Your task to perform on an android device: Add "jbl flip 4" to the cart on target Image 0: 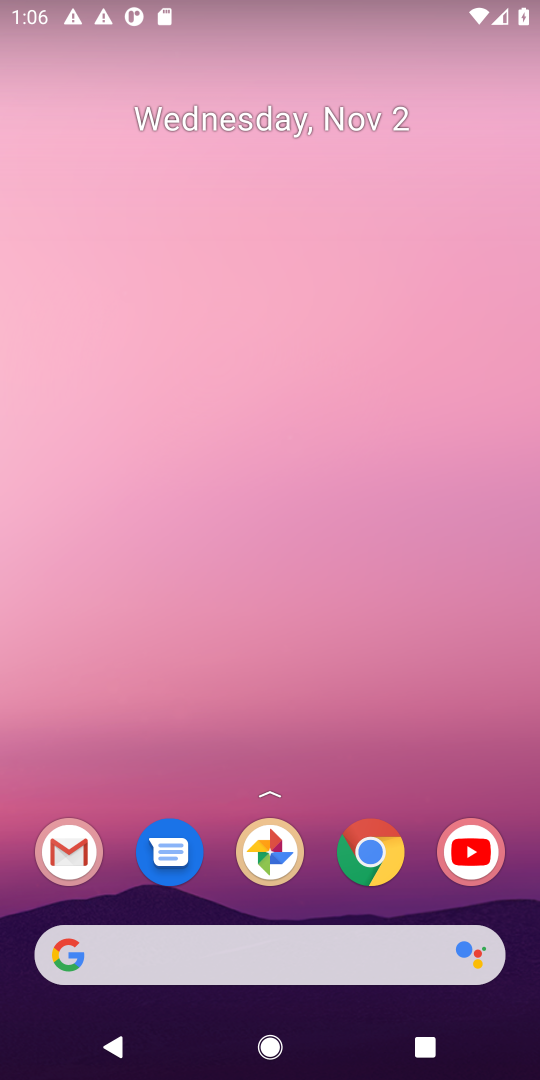
Step 0: press home button
Your task to perform on an android device: Add "jbl flip 4" to the cart on target Image 1: 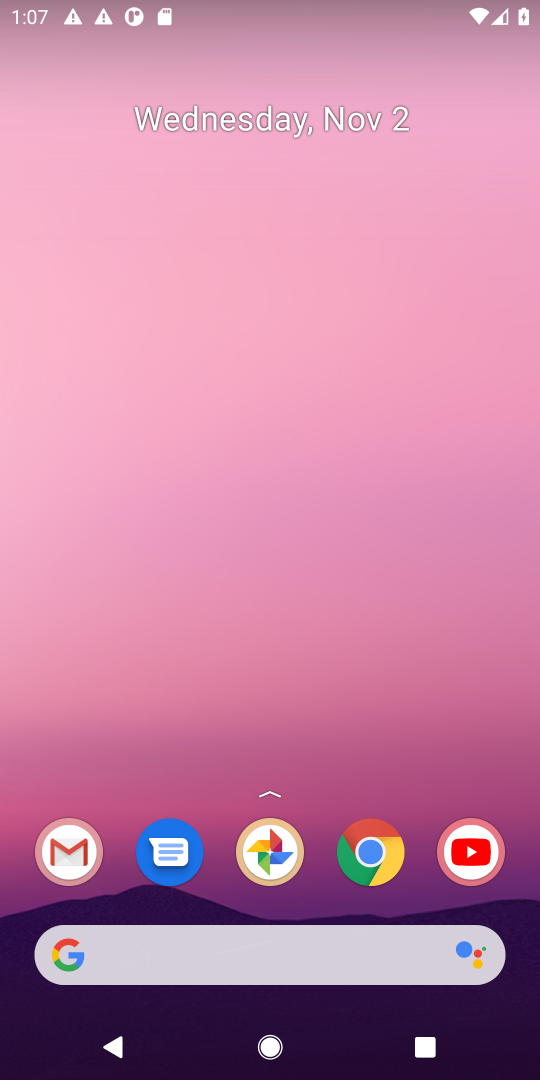
Step 1: click (67, 937)
Your task to perform on an android device: Add "jbl flip 4" to the cart on target Image 2: 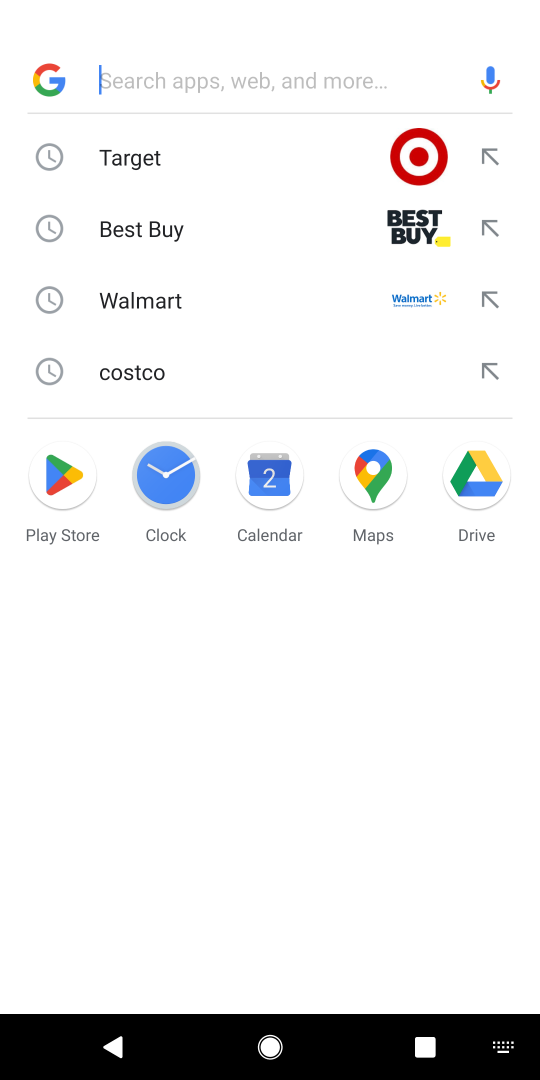
Step 2: click (149, 156)
Your task to perform on an android device: Add "jbl flip 4" to the cart on target Image 3: 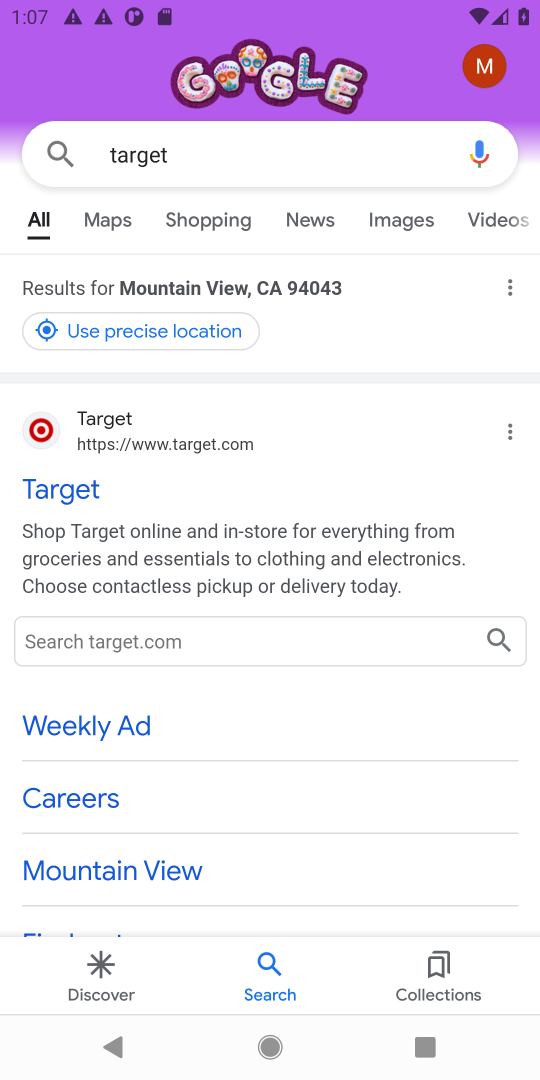
Step 3: click (67, 484)
Your task to perform on an android device: Add "jbl flip 4" to the cart on target Image 4: 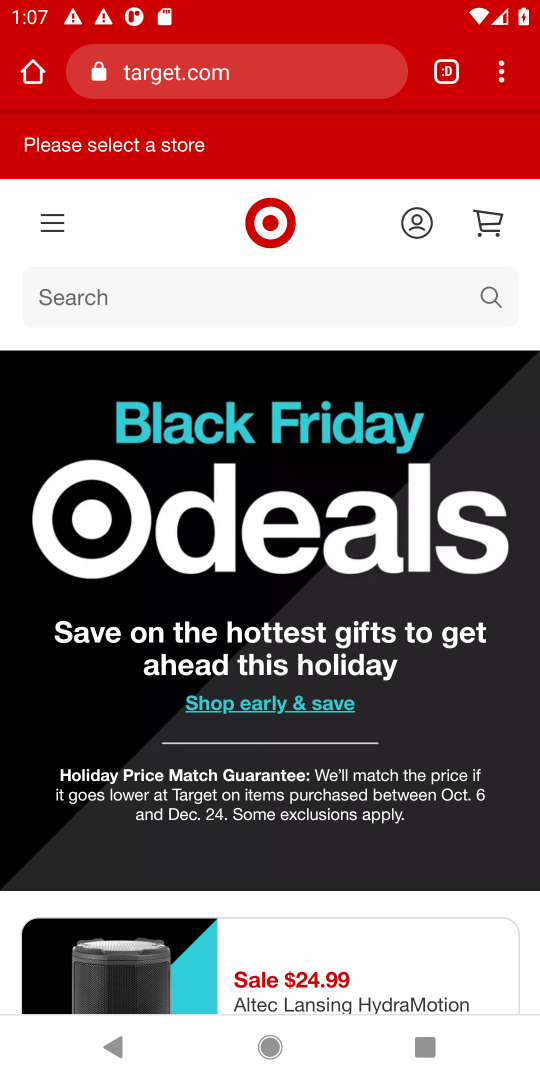
Step 4: click (152, 301)
Your task to perform on an android device: Add "jbl flip 4" to the cart on target Image 5: 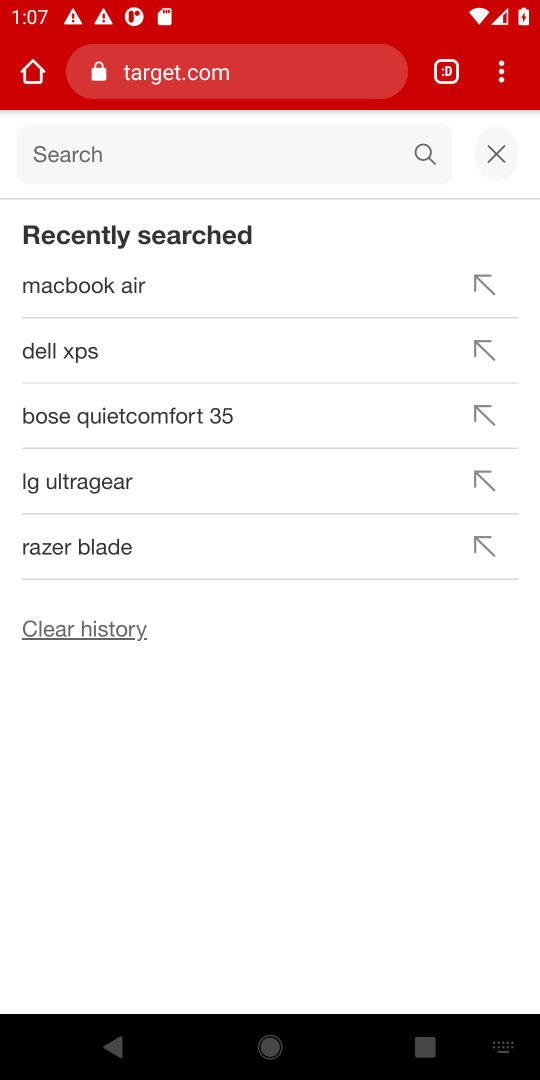
Step 5: type "jbl flip 4"
Your task to perform on an android device: Add "jbl flip 4" to the cart on target Image 6: 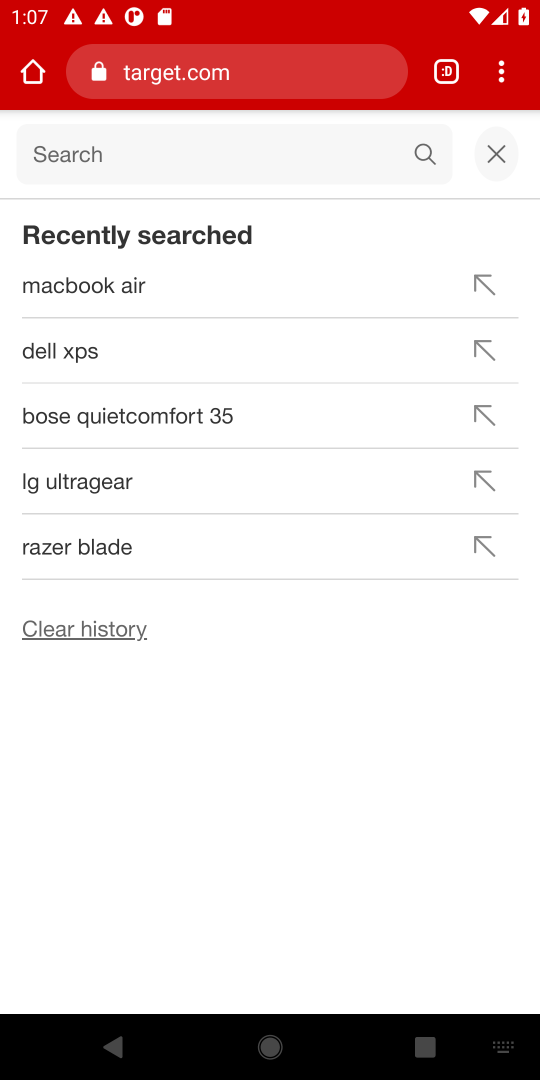
Step 6: click (75, 150)
Your task to perform on an android device: Add "jbl flip 4" to the cart on target Image 7: 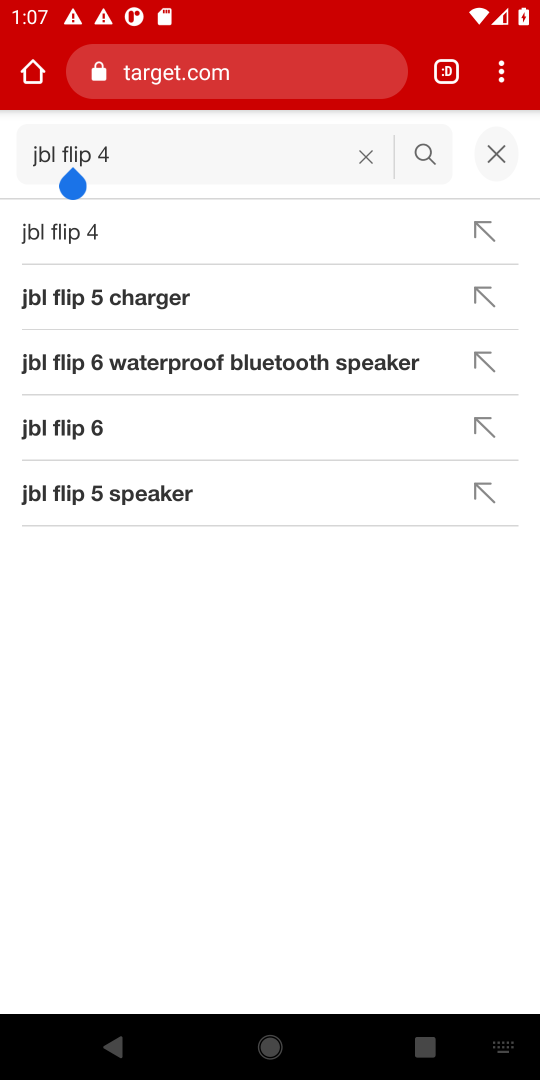
Step 7: press enter
Your task to perform on an android device: Add "jbl flip 4" to the cart on target Image 8: 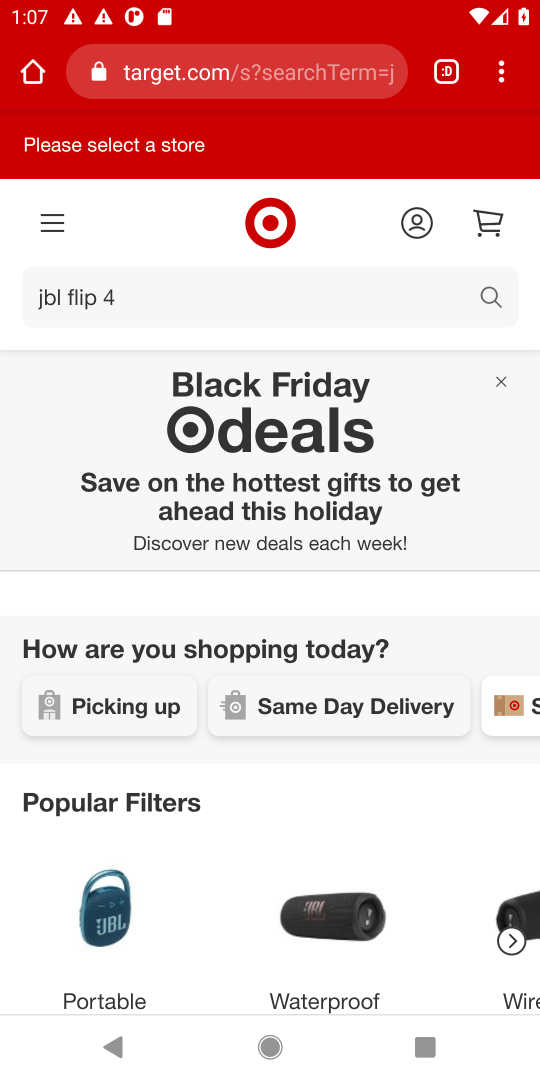
Step 8: drag from (371, 802) to (418, 266)
Your task to perform on an android device: Add "jbl flip 4" to the cart on target Image 9: 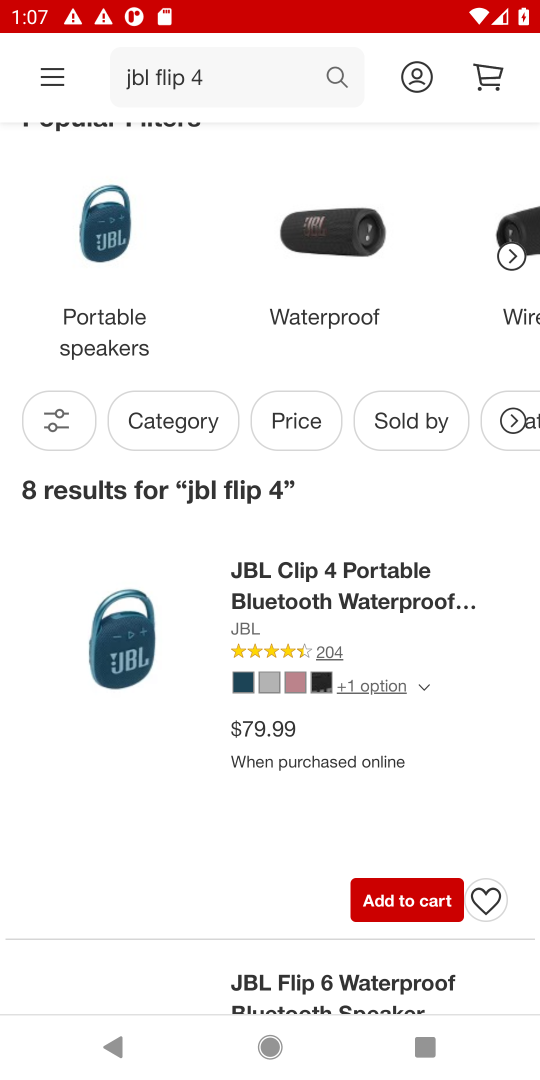
Step 9: click (322, 565)
Your task to perform on an android device: Add "jbl flip 4" to the cart on target Image 10: 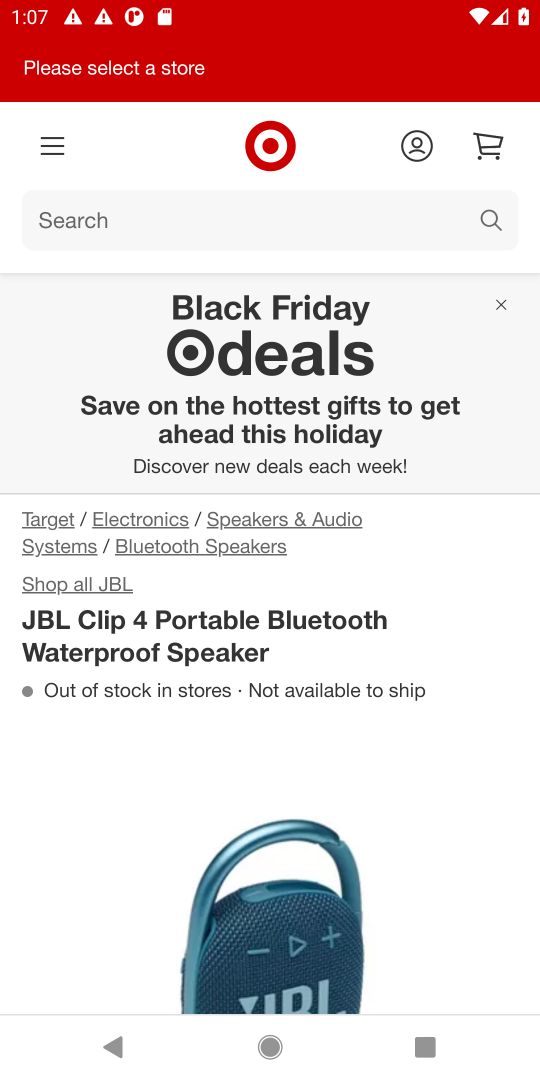
Step 10: drag from (402, 792) to (385, 311)
Your task to perform on an android device: Add "jbl flip 4" to the cart on target Image 11: 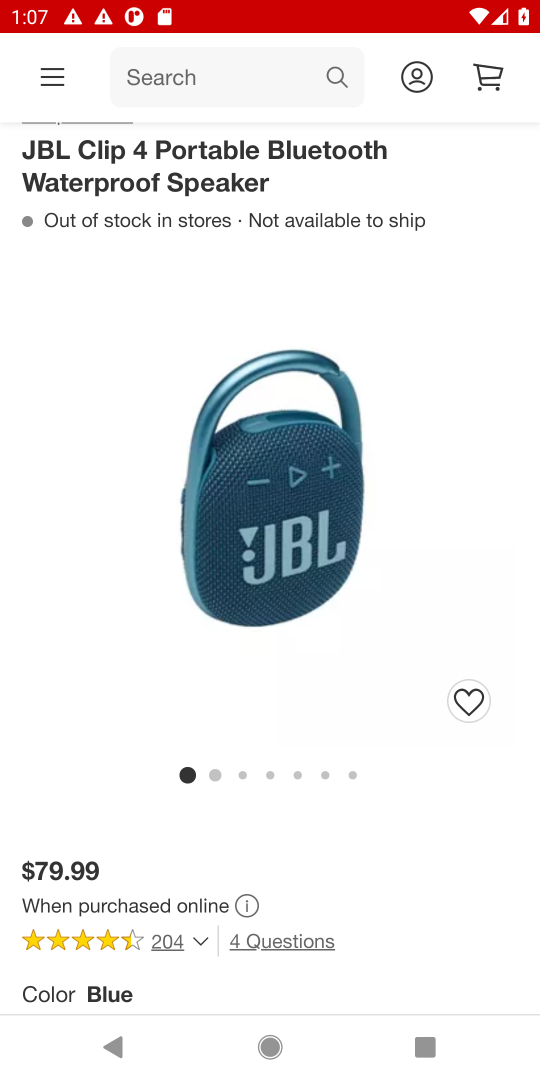
Step 11: drag from (398, 849) to (380, 302)
Your task to perform on an android device: Add "jbl flip 4" to the cart on target Image 12: 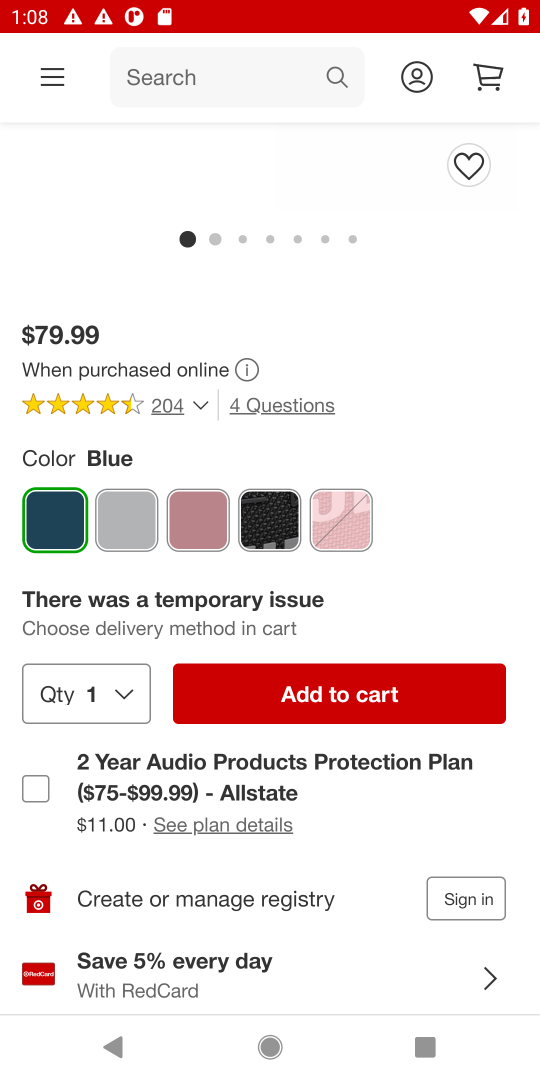
Step 12: click (341, 701)
Your task to perform on an android device: Add "jbl flip 4" to the cart on target Image 13: 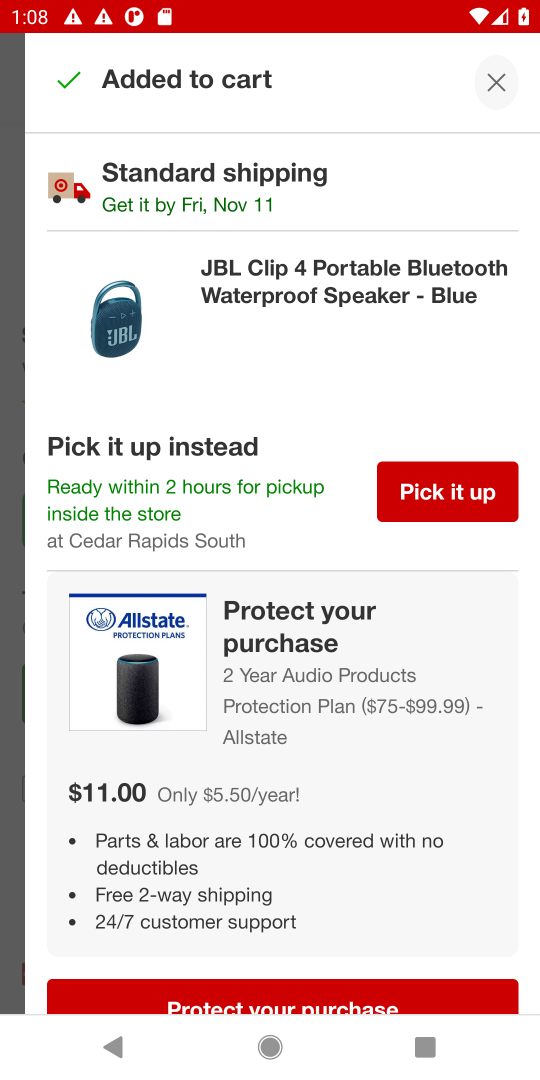
Step 13: click (495, 85)
Your task to perform on an android device: Add "jbl flip 4" to the cart on target Image 14: 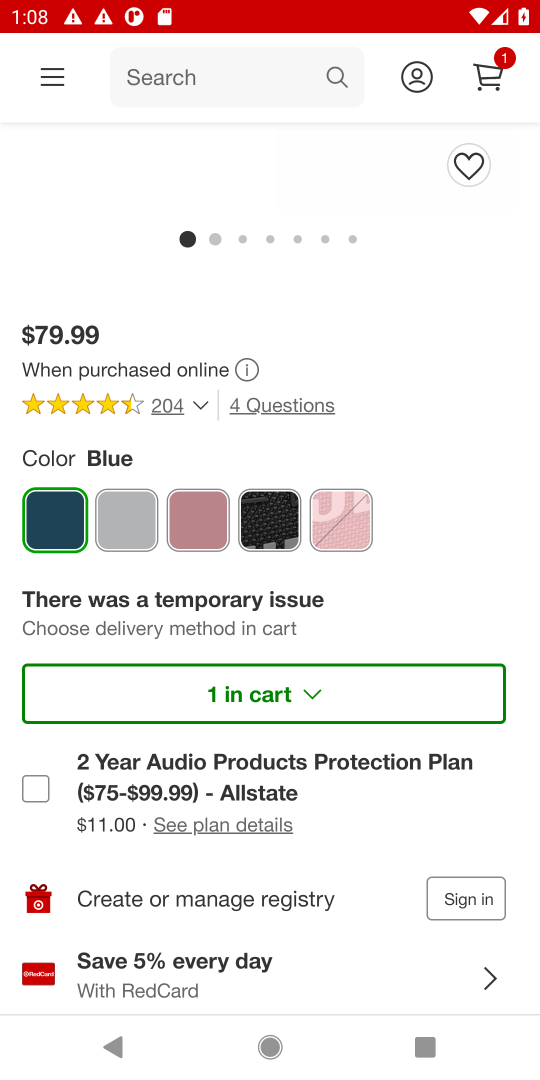
Step 14: task complete